Your task to perform on an android device: Search for the new nike shoes on Target Image 0: 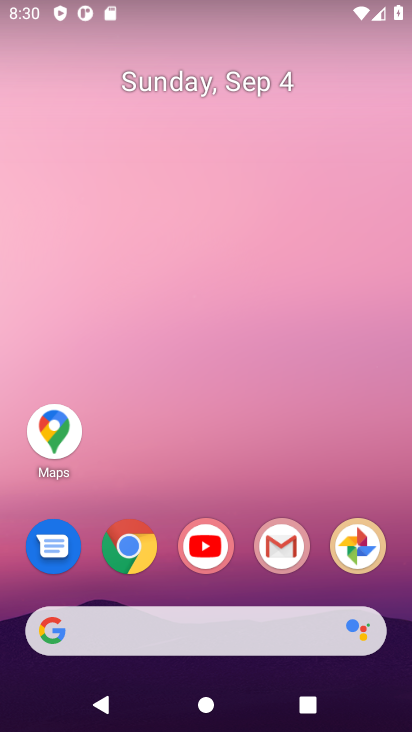
Step 0: click (136, 550)
Your task to perform on an android device: Search for the new nike shoes on Target Image 1: 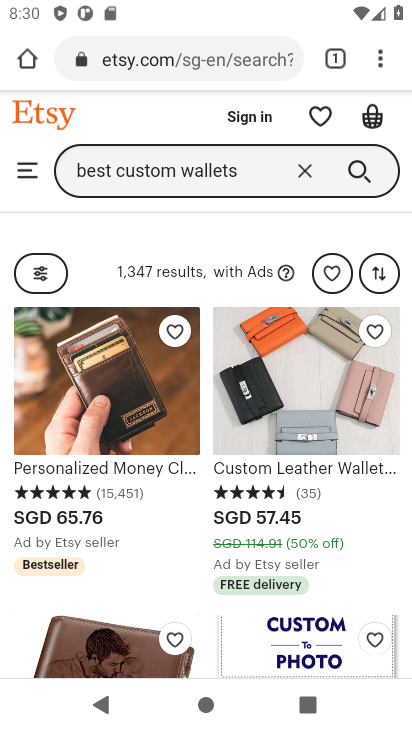
Step 1: click (214, 65)
Your task to perform on an android device: Search for the new nike shoes on Target Image 2: 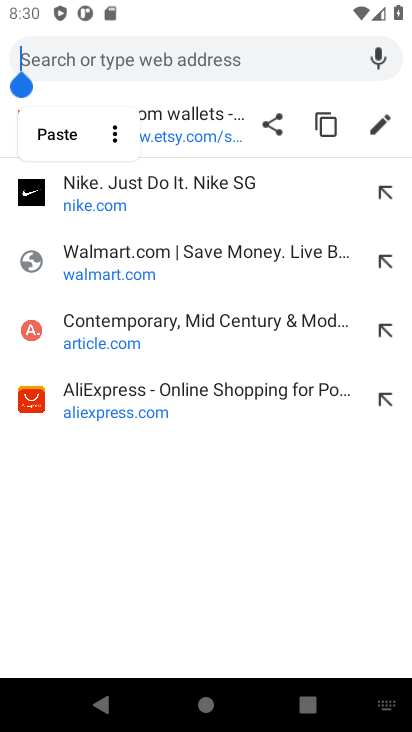
Step 2: type "Target"
Your task to perform on an android device: Search for the new nike shoes on Target Image 3: 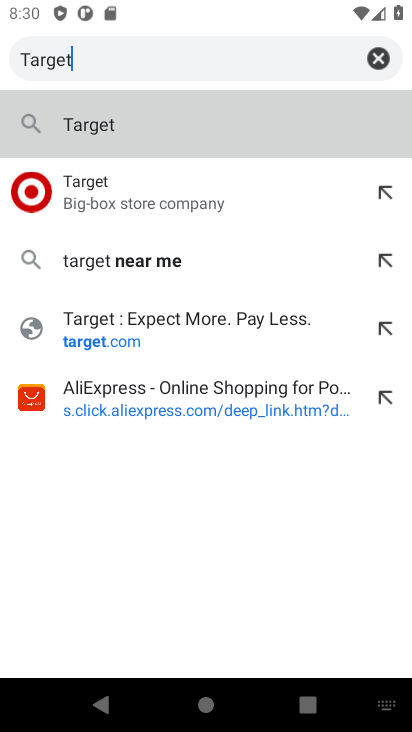
Step 3: click (64, 196)
Your task to perform on an android device: Search for the new nike shoes on Target Image 4: 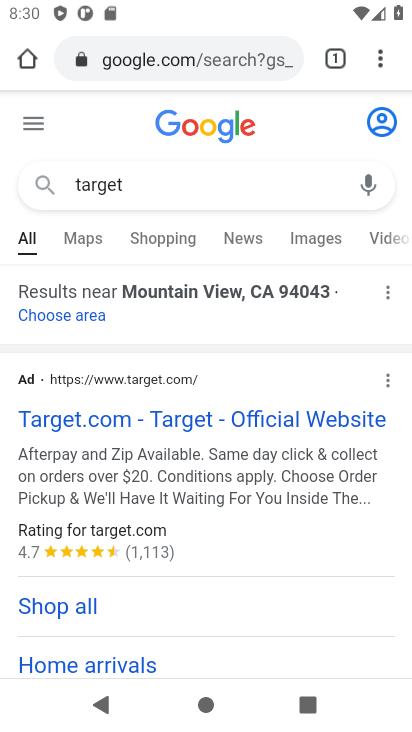
Step 4: click (76, 419)
Your task to perform on an android device: Search for the new nike shoes on Target Image 5: 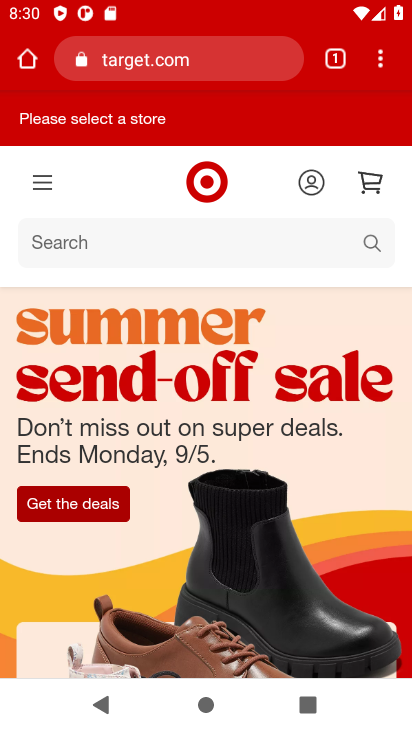
Step 5: click (379, 249)
Your task to perform on an android device: Search for the new nike shoes on Target Image 6: 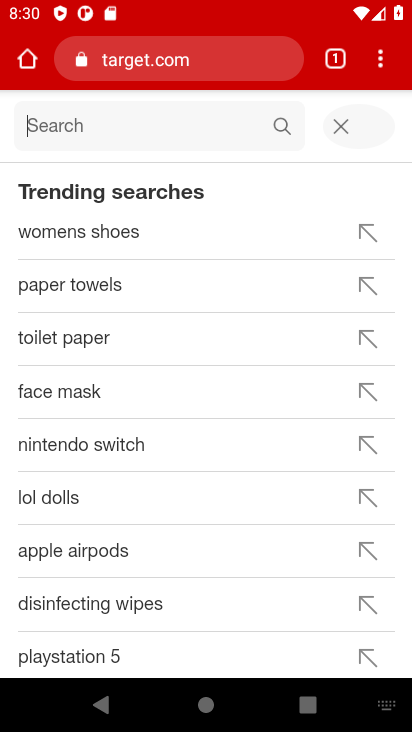
Step 6: type "new nike shoes"
Your task to perform on an android device: Search for the new nike shoes on Target Image 7: 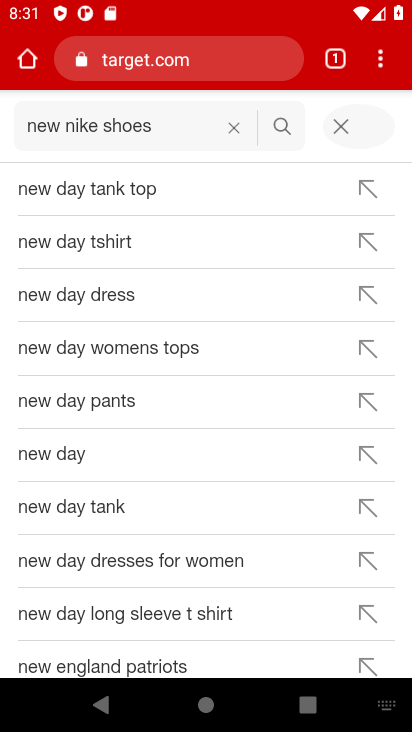
Step 7: click (281, 116)
Your task to perform on an android device: Search for the new nike shoes on Target Image 8: 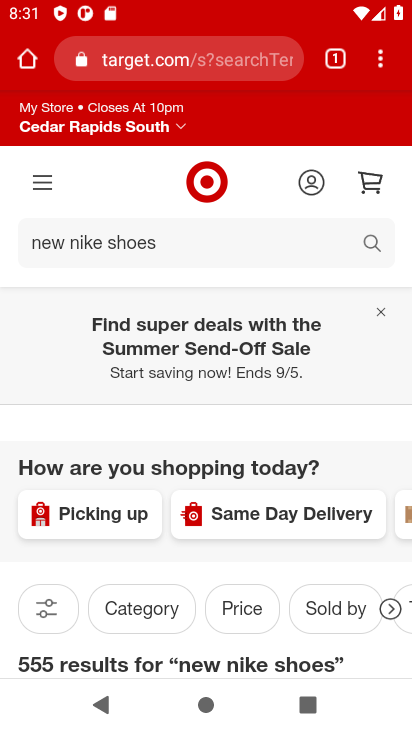
Step 8: click (370, 241)
Your task to perform on an android device: Search for the new nike shoes on Target Image 9: 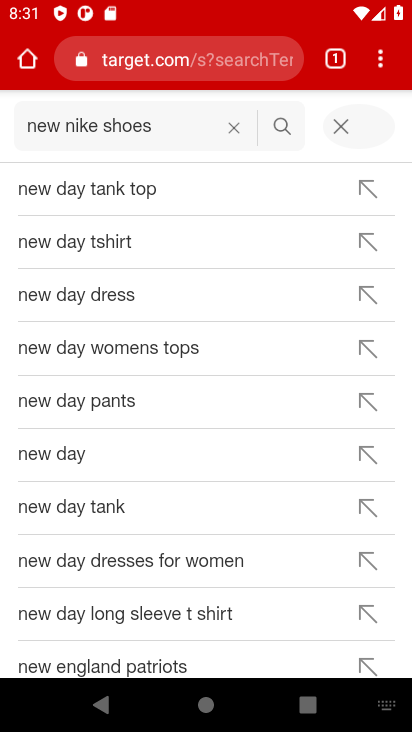
Step 9: click (280, 119)
Your task to perform on an android device: Search for the new nike shoes on Target Image 10: 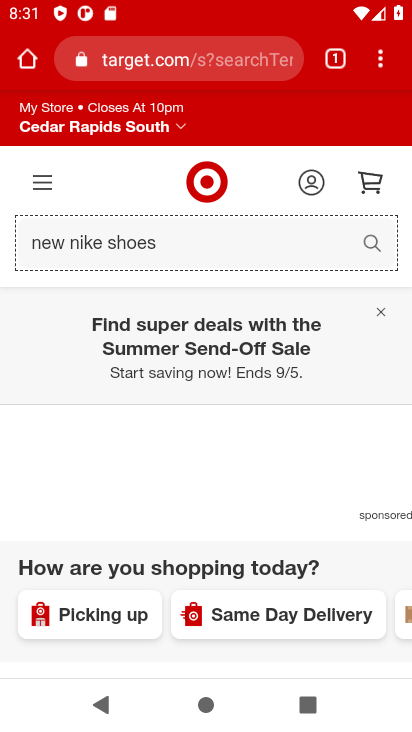
Step 10: task complete